Your task to perform on an android device: check data usage Image 0: 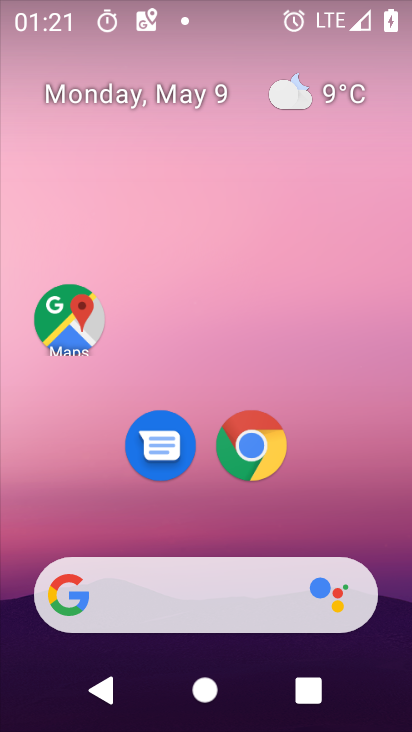
Step 0: drag from (362, 555) to (349, 16)
Your task to perform on an android device: check data usage Image 1: 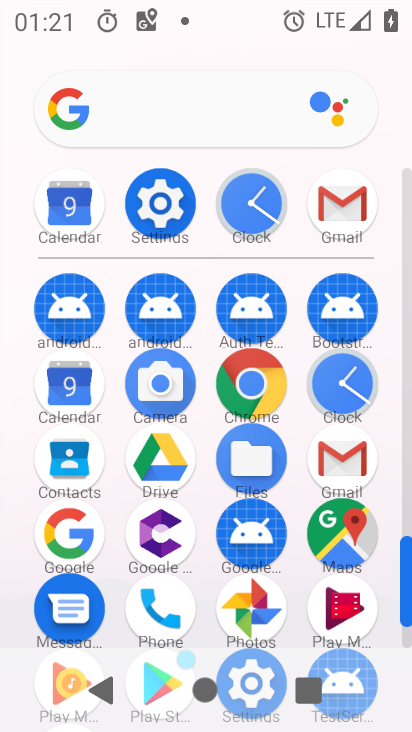
Step 1: click (163, 206)
Your task to perform on an android device: check data usage Image 2: 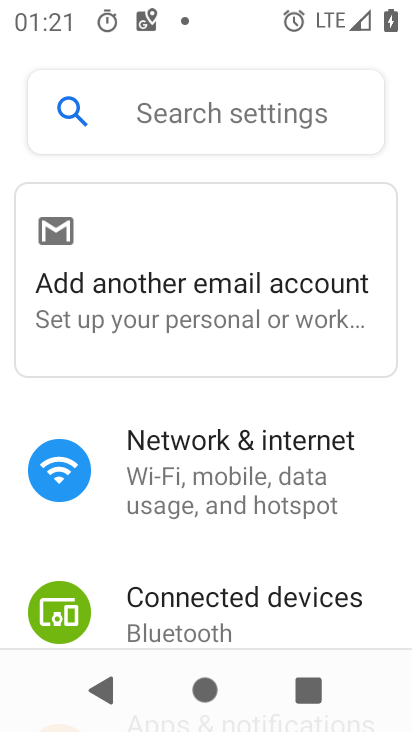
Step 2: click (213, 461)
Your task to perform on an android device: check data usage Image 3: 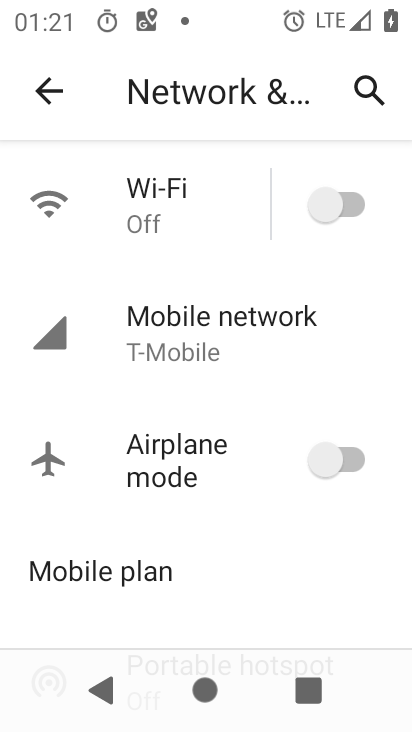
Step 3: click (159, 342)
Your task to perform on an android device: check data usage Image 4: 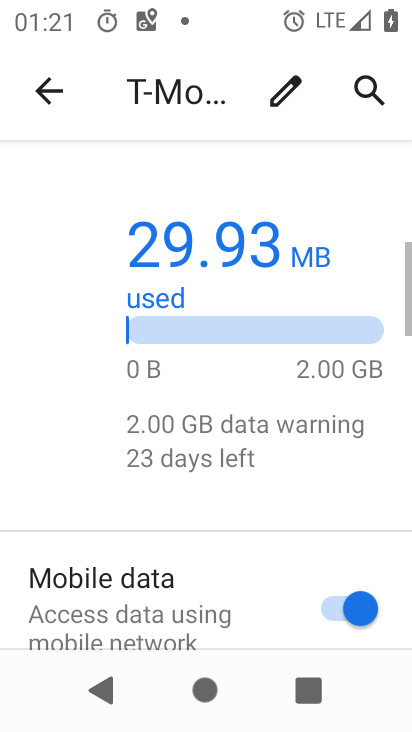
Step 4: drag from (187, 524) to (172, 241)
Your task to perform on an android device: check data usage Image 5: 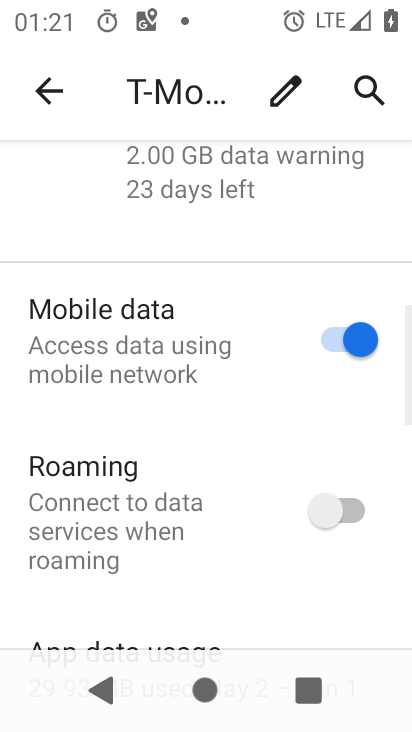
Step 5: drag from (123, 551) to (137, 197)
Your task to perform on an android device: check data usage Image 6: 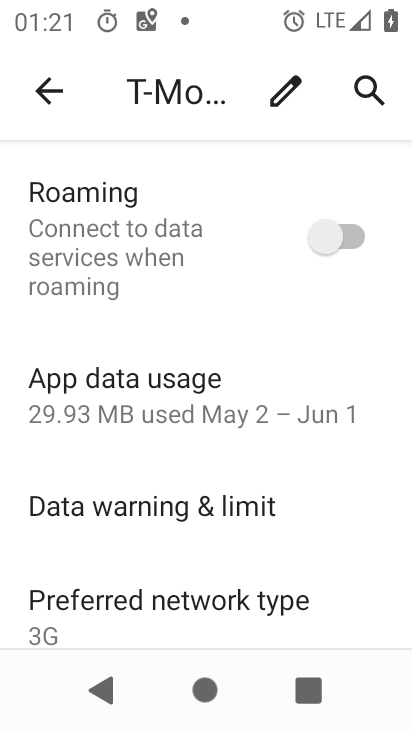
Step 6: click (108, 409)
Your task to perform on an android device: check data usage Image 7: 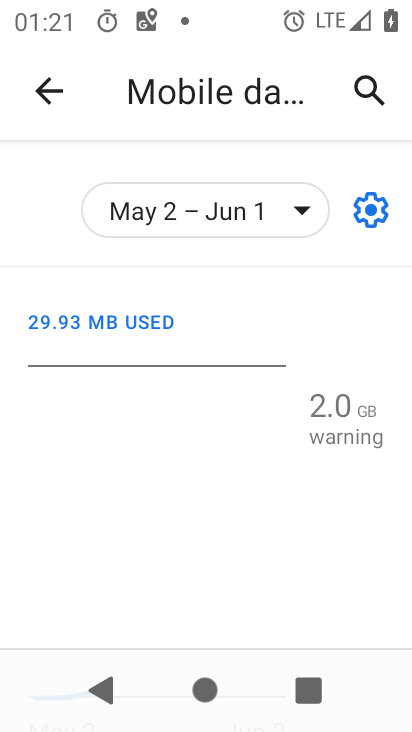
Step 7: task complete